Your task to perform on an android device: manage bookmarks in the chrome app Image 0: 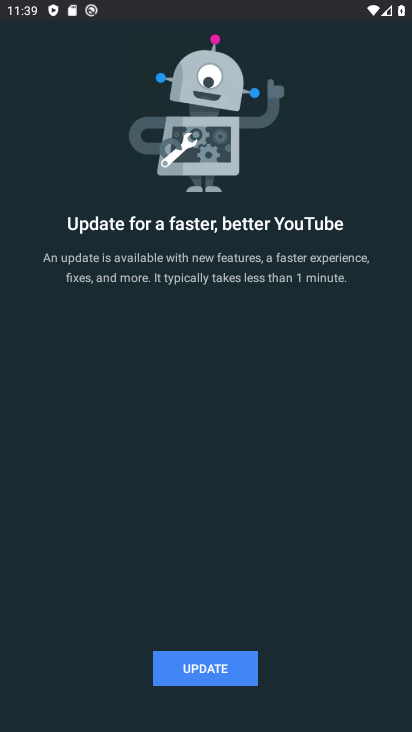
Step 0: press home button
Your task to perform on an android device: manage bookmarks in the chrome app Image 1: 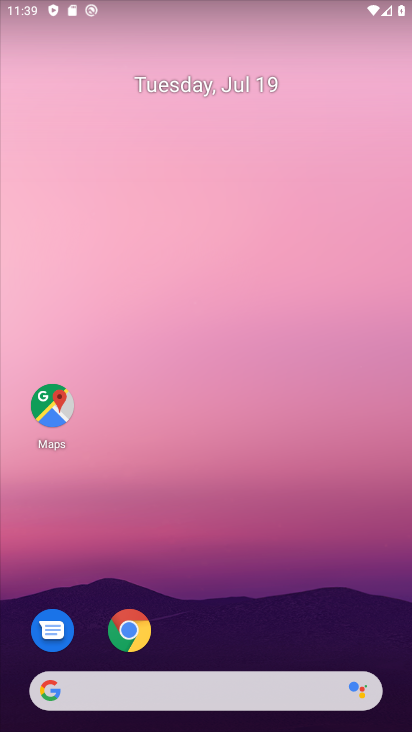
Step 1: drag from (241, 641) to (276, 240)
Your task to perform on an android device: manage bookmarks in the chrome app Image 2: 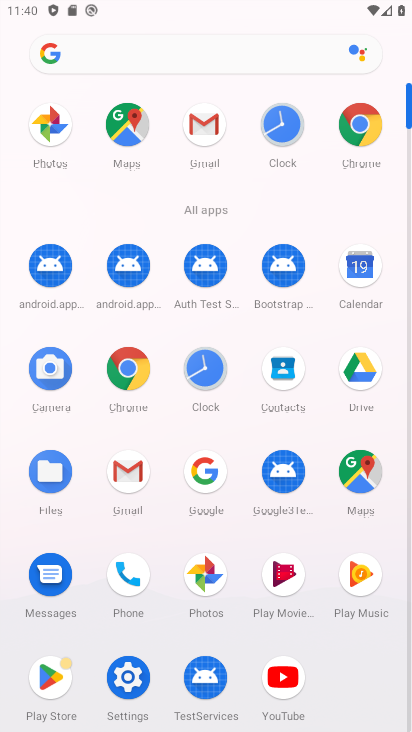
Step 2: click (122, 384)
Your task to perform on an android device: manage bookmarks in the chrome app Image 3: 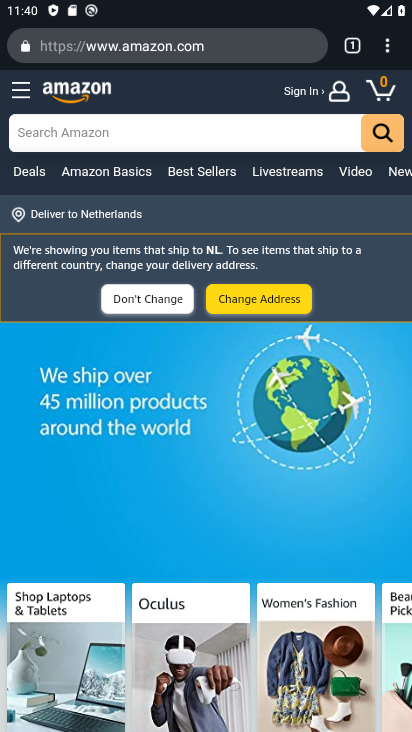
Step 3: click (380, 50)
Your task to perform on an android device: manage bookmarks in the chrome app Image 4: 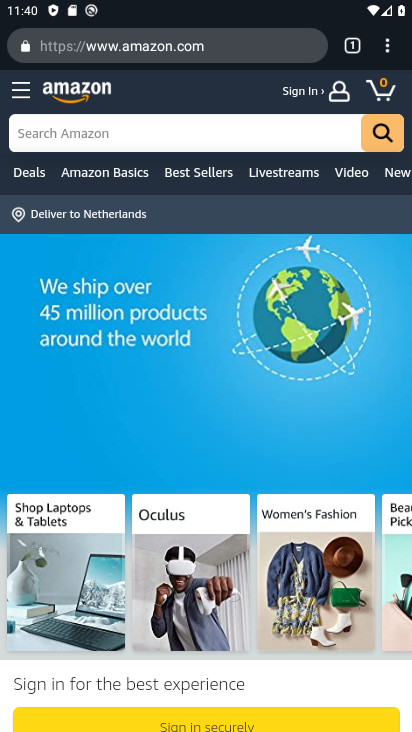
Step 4: click (393, 43)
Your task to perform on an android device: manage bookmarks in the chrome app Image 5: 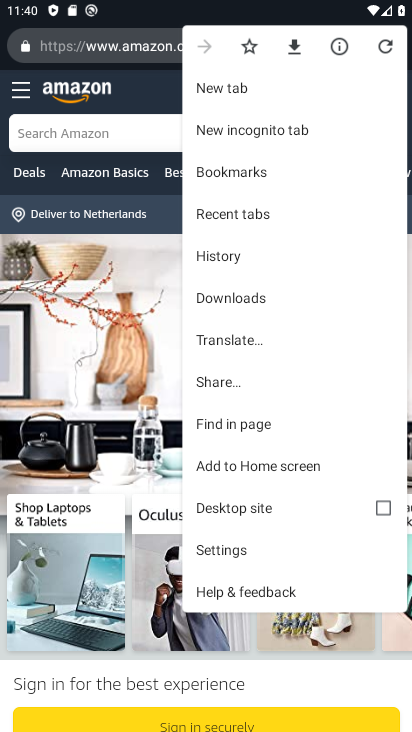
Step 5: click (233, 169)
Your task to perform on an android device: manage bookmarks in the chrome app Image 6: 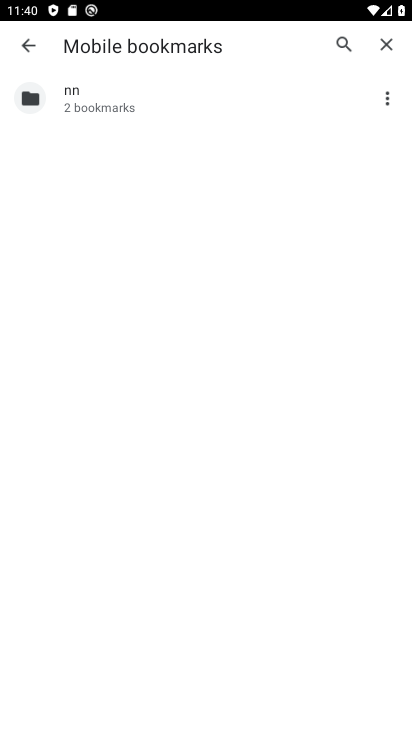
Step 6: task complete